Your task to perform on an android device: open a bookmark in the chrome app Image 0: 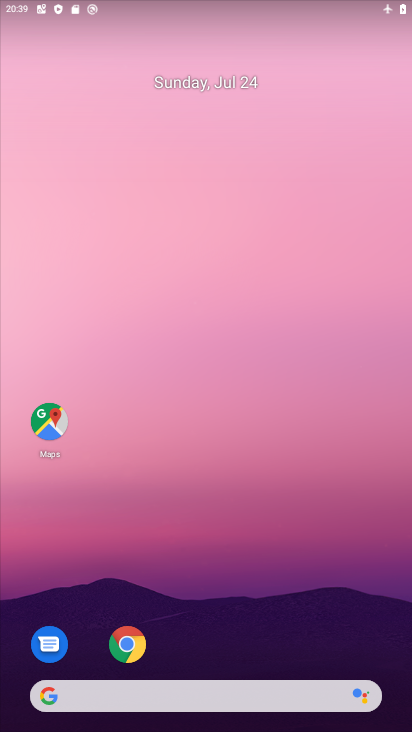
Step 0: click (126, 647)
Your task to perform on an android device: open a bookmark in the chrome app Image 1: 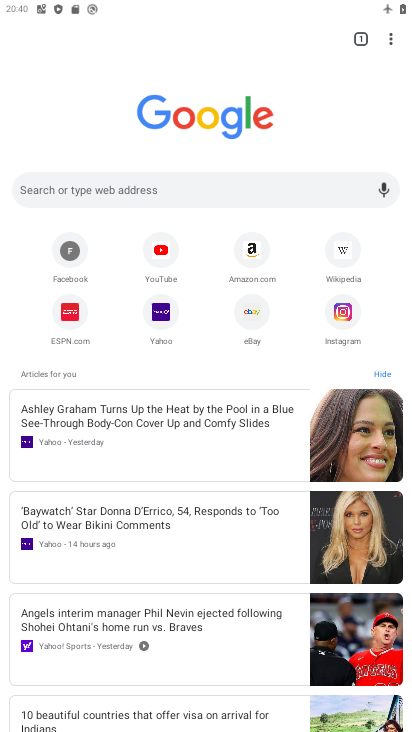
Step 1: click (391, 44)
Your task to perform on an android device: open a bookmark in the chrome app Image 2: 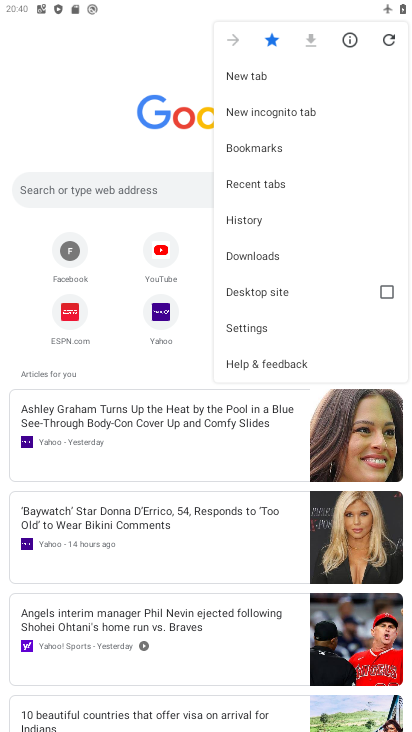
Step 2: click (252, 150)
Your task to perform on an android device: open a bookmark in the chrome app Image 3: 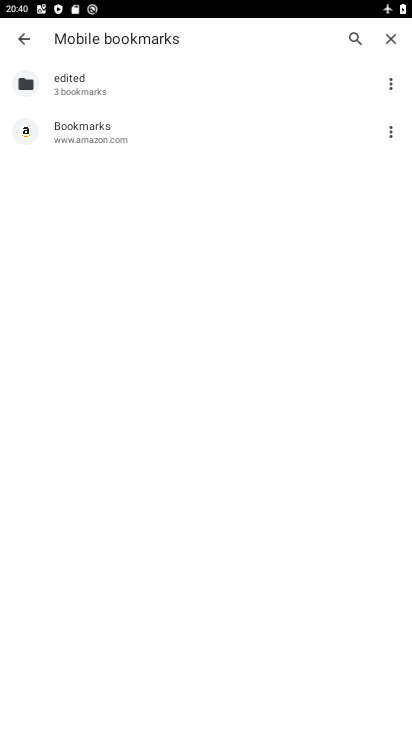
Step 3: task complete